Your task to perform on an android device: toggle improve location accuracy Image 0: 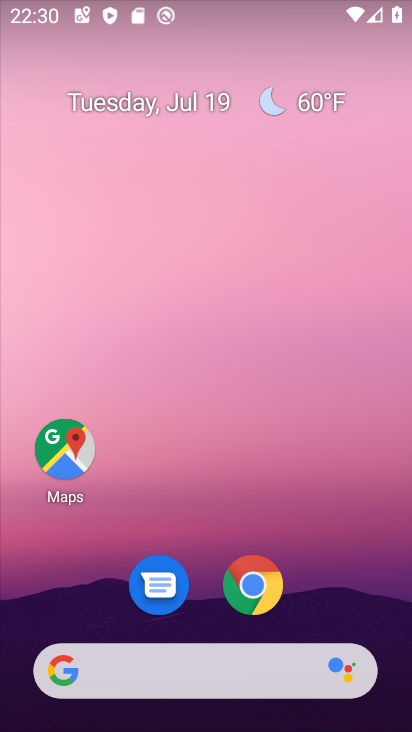
Step 0: drag from (323, 548) to (303, 60)
Your task to perform on an android device: toggle improve location accuracy Image 1: 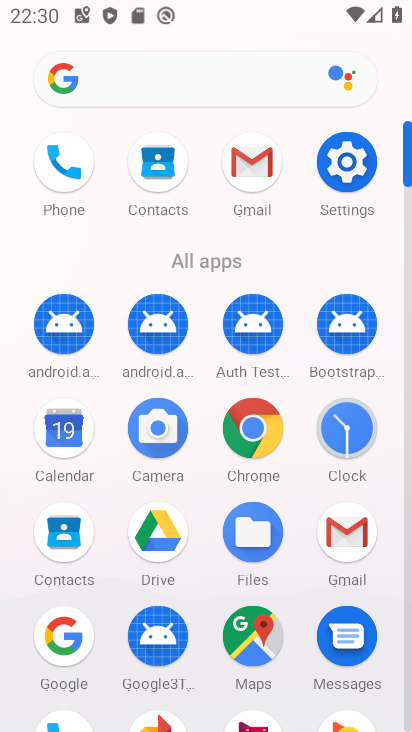
Step 1: click (351, 168)
Your task to perform on an android device: toggle improve location accuracy Image 2: 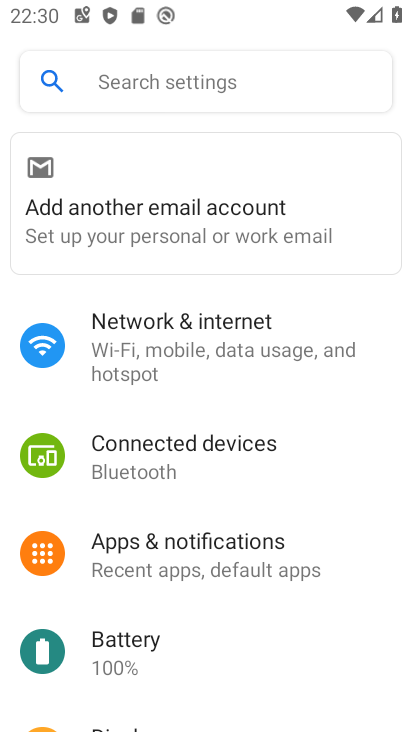
Step 2: drag from (203, 638) to (215, 185)
Your task to perform on an android device: toggle improve location accuracy Image 3: 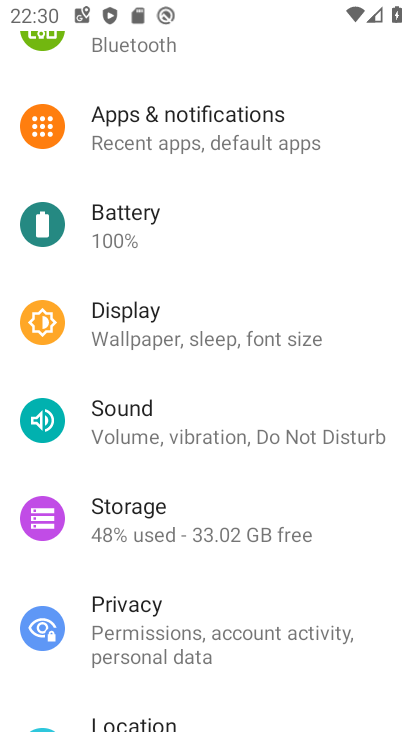
Step 3: drag from (227, 584) to (240, 297)
Your task to perform on an android device: toggle improve location accuracy Image 4: 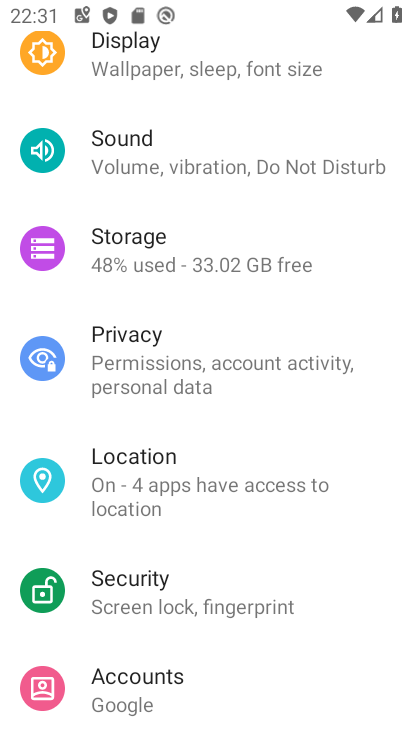
Step 4: click (234, 476)
Your task to perform on an android device: toggle improve location accuracy Image 5: 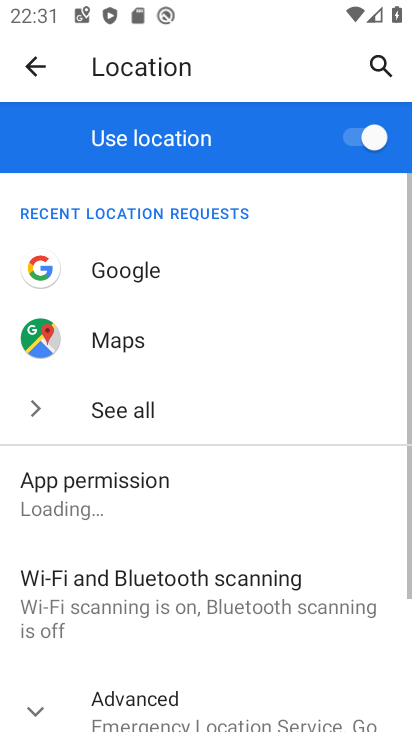
Step 5: drag from (231, 516) to (249, 185)
Your task to perform on an android device: toggle improve location accuracy Image 6: 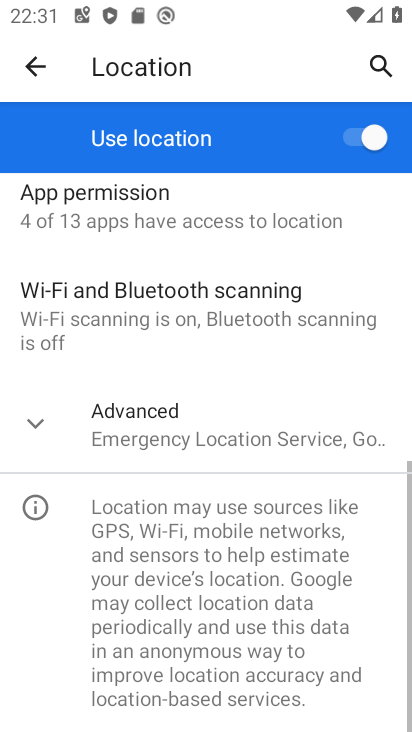
Step 6: click (39, 422)
Your task to perform on an android device: toggle improve location accuracy Image 7: 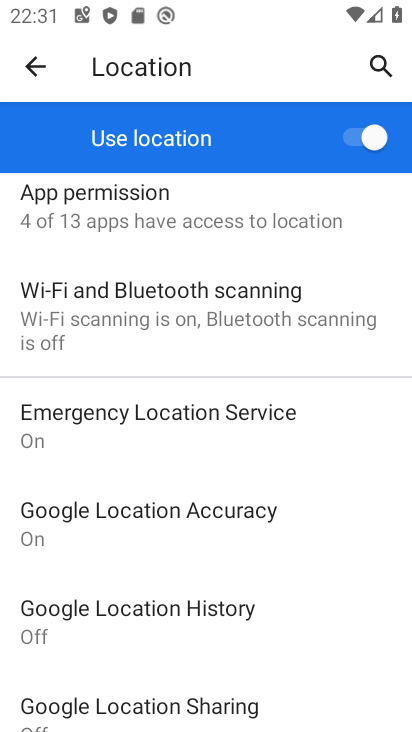
Step 7: click (183, 521)
Your task to perform on an android device: toggle improve location accuracy Image 8: 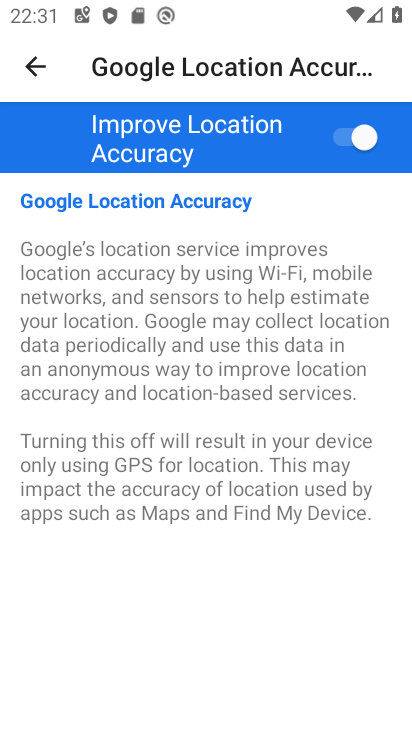
Step 8: click (359, 136)
Your task to perform on an android device: toggle improve location accuracy Image 9: 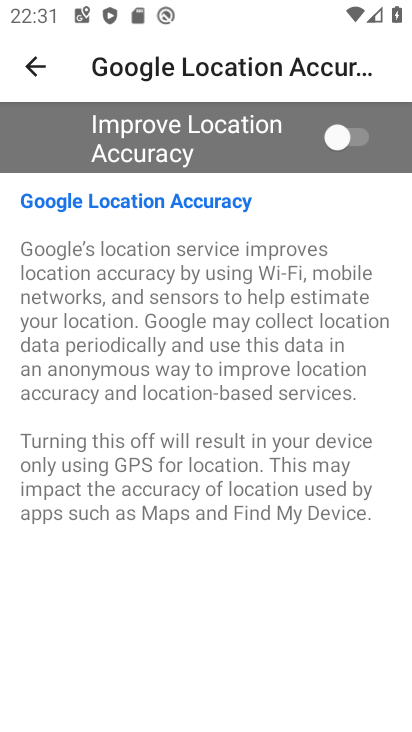
Step 9: task complete